Your task to perform on an android device: Go to Yahoo.com Image 0: 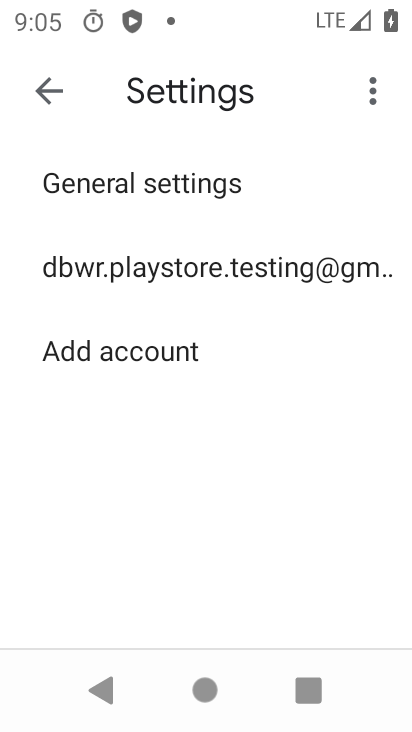
Step 0: press home button
Your task to perform on an android device: Go to Yahoo.com Image 1: 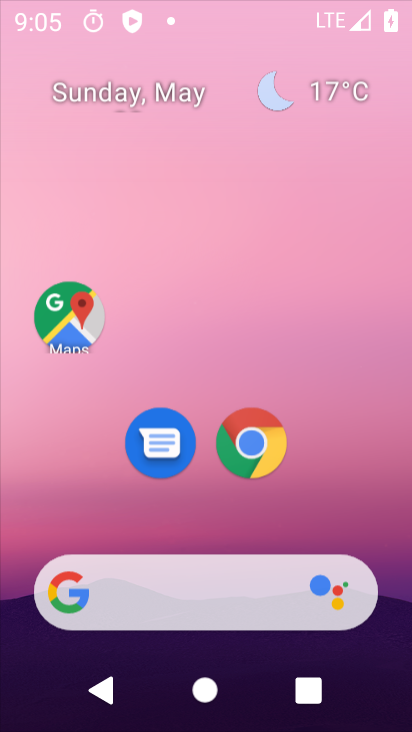
Step 1: drag from (202, 506) to (188, 3)
Your task to perform on an android device: Go to Yahoo.com Image 2: 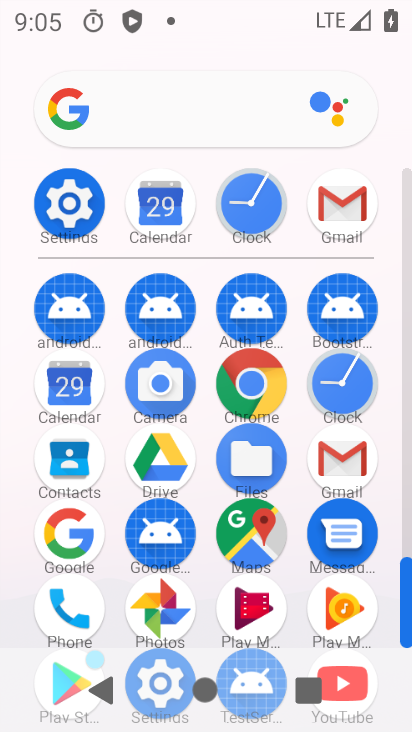
Step 2: click (139, 139)
Your task to perform on an android device: Go to Yahoo.com Image 3: 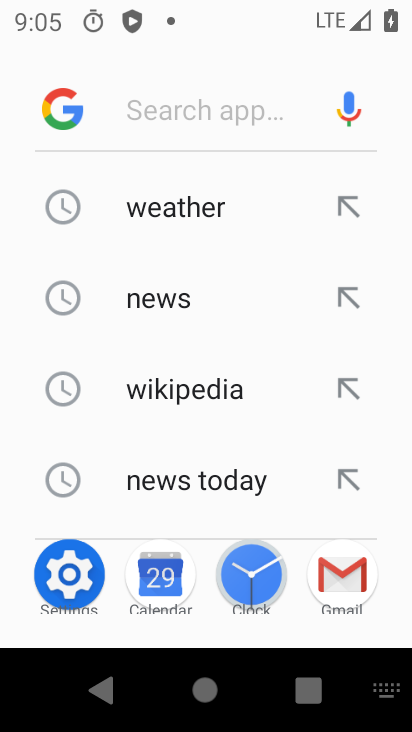
Step 3: click (109, 108)
Your task to perform on an android device: Go to Yahoo.com Image 4: 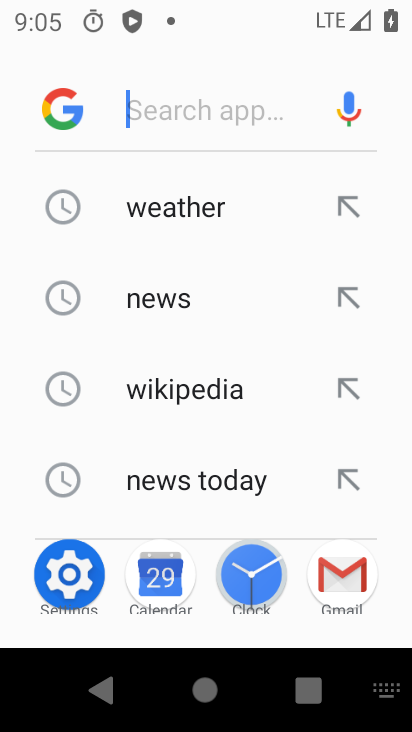
Step 4: type "Yahoo.com"
Your task to perform on an android device: Go to Yahoo.com Image 5: 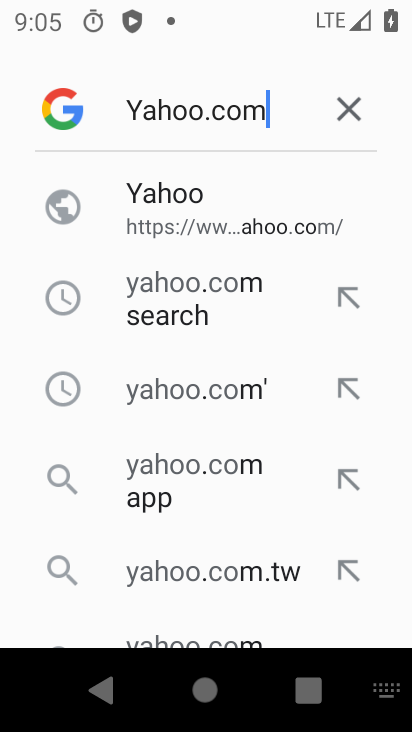
Step 5: type ""
Your task to perform on an android device: Go to Yahoo.com Image 6: 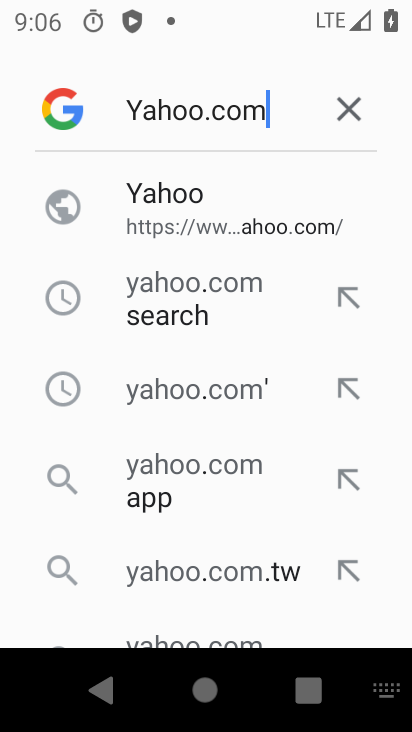
Step 6: click (135, 211)
Your task to perform on an android device: Go to Yahoo.com Image 7: 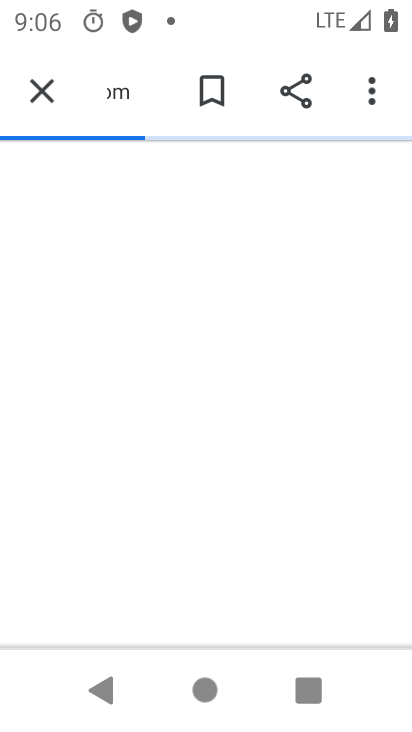
Step 7: task complete